Your task to perform on an android device: Open the calendar and show me this week's events? Image 0: 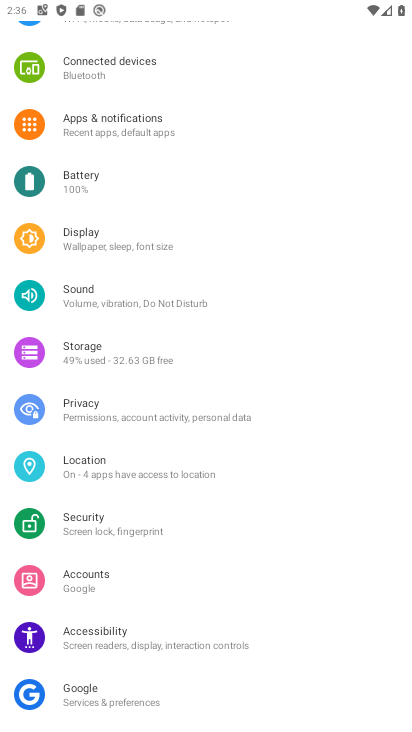
Step 0: press home button
Your task to perform on an android device: Open the calendar and show me this week's events? Image 1: 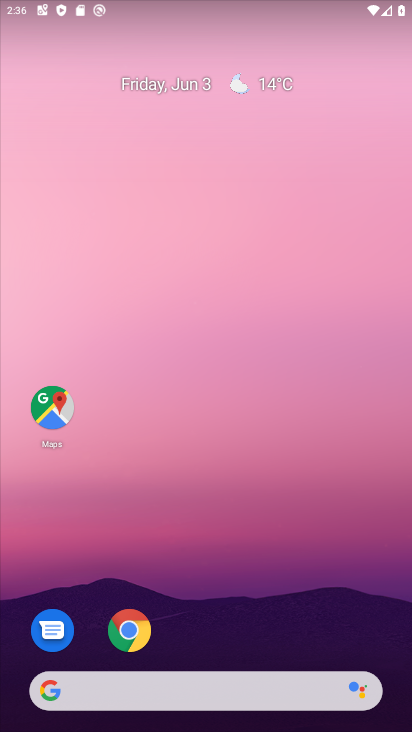
Step 1: drag from (278, 626) to (216, 125)
Your task to perform on an android device: Open the calendar and show me this week's events? Image 2: 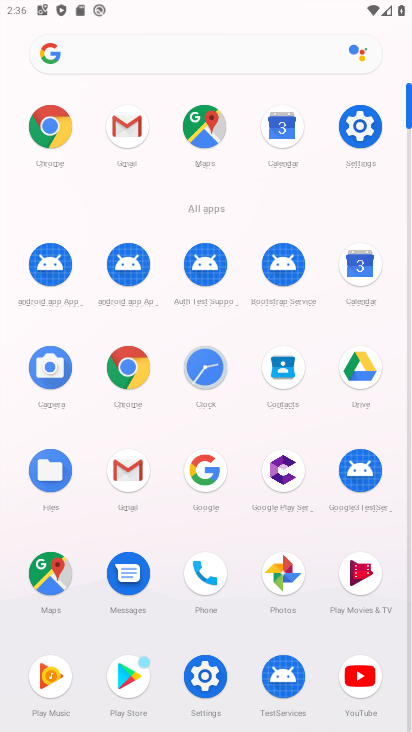
Step 2: click (364, 263)
Your task to perform on an android device: Open the calendar and show me this week's events? Image 3: 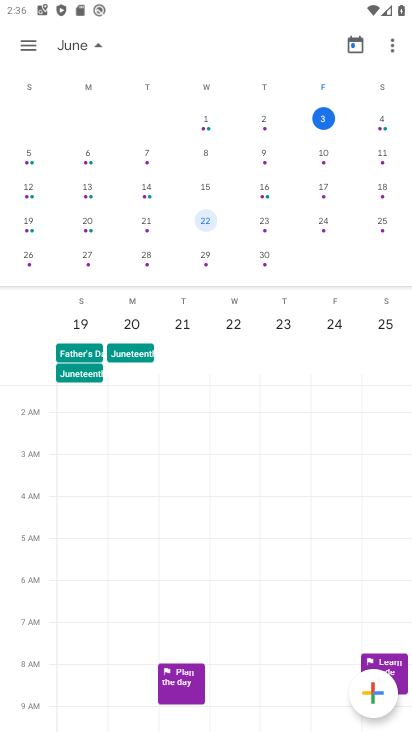
Step 3: click (23, 47)
Your task to perform on an android device: Open the calendar and show me this week's events? Image 4: 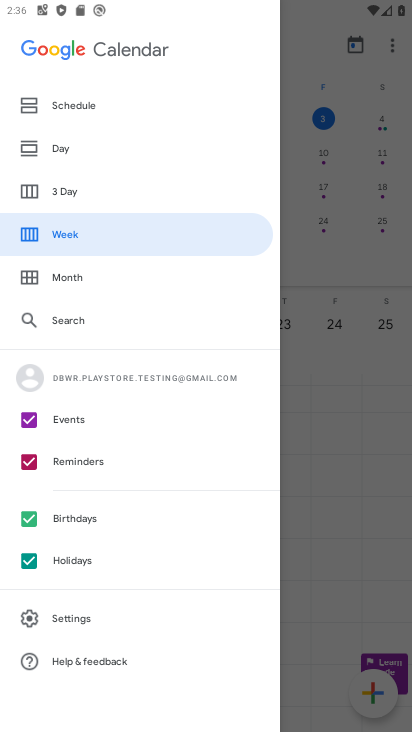
Step 4: click (24, 559)
Your task to perform on an android device: Open the calendar and show me this week's events? Image 5: 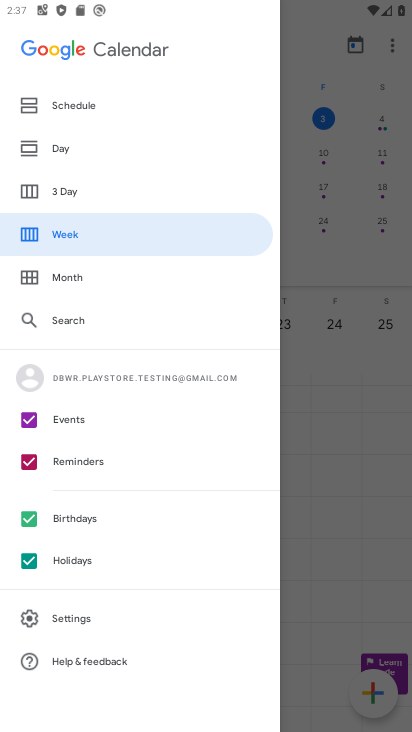
Step 5: click (29, 561)
Your task to perform on an android device: Open the calendar and show me this week's events? Image 6: 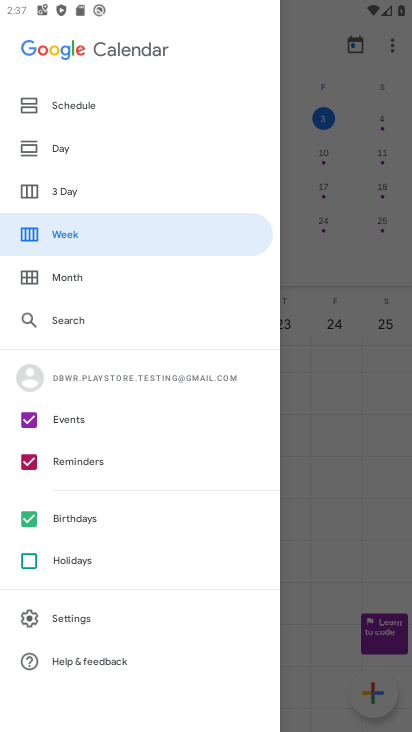
Step 6: click (28, 518)
Your task to perform on an android device: Open the calendar and show me this week's events? Image 7: 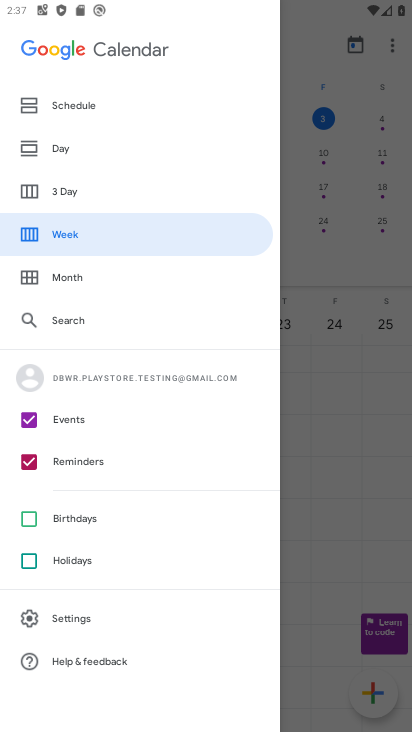
Step 7: click (27, 457)
Your task to perform on an android device: Open the calendar and show me this week's events? Image 8: 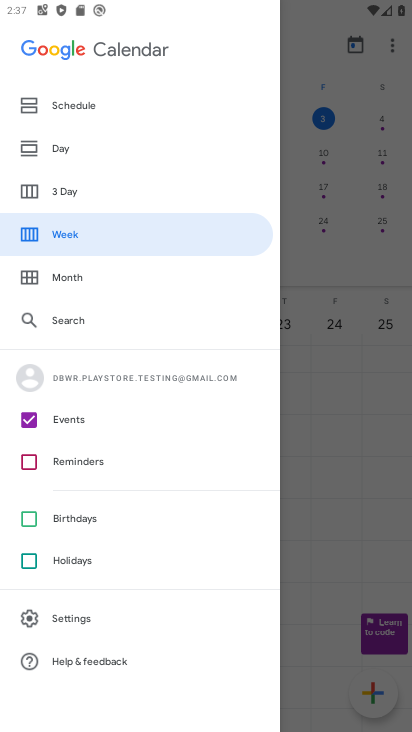
Step 8: click (55, 236)
Your task to perform on an android device: Open the calendar and show me this week's events? Image 9: 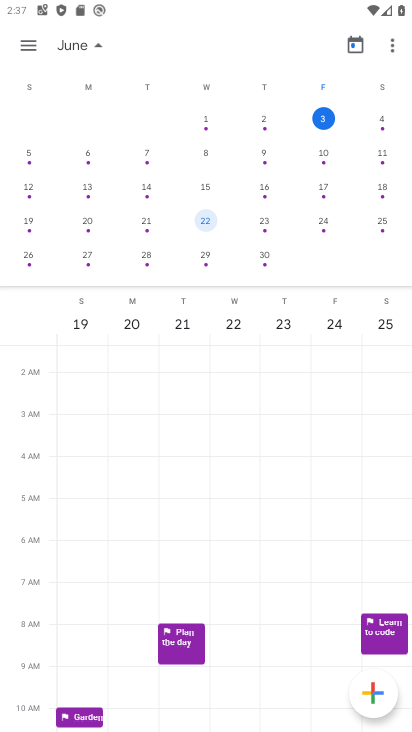
Step 9: click (112, 235)
Your task to perform on an android device: Open the calendar and show me this week's events? Image 10: 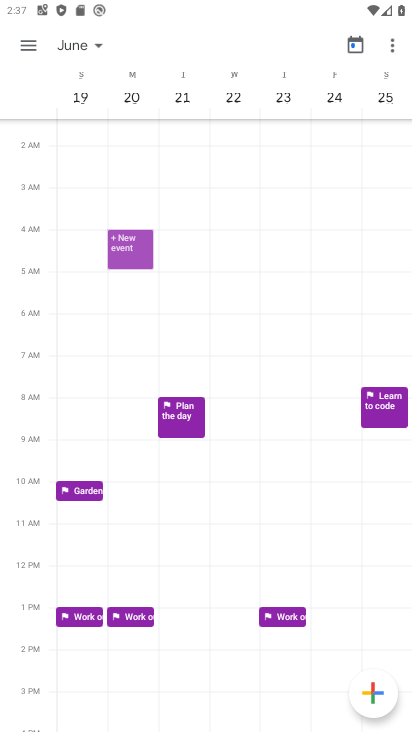
Step 10: click (90, 56)
Your task to perform on an android device: Open the calendar and show me this week's events? Image 11: 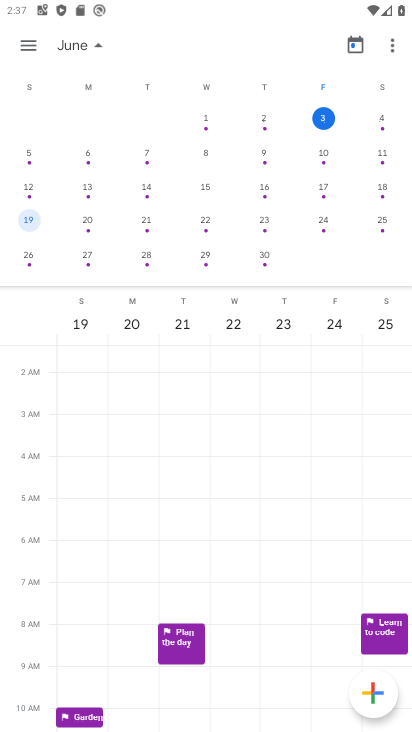
Step 11: click (329, 117)
Your task to perform on an android device: Open the calendar and show me this week's events? Image 12: 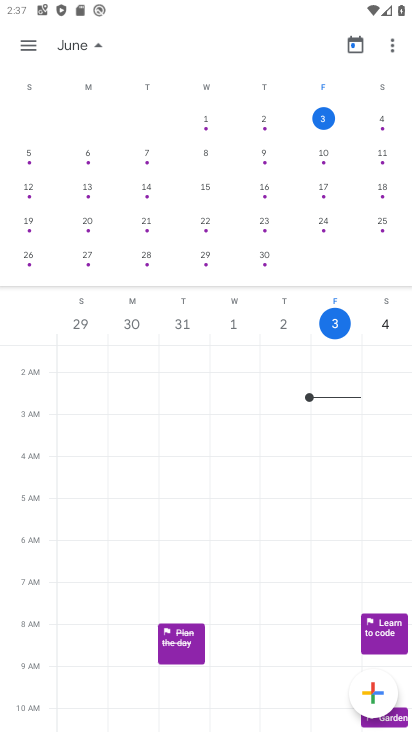
Step 12: task complete